Your task to perform on an android device: Open Amazon Image 0: 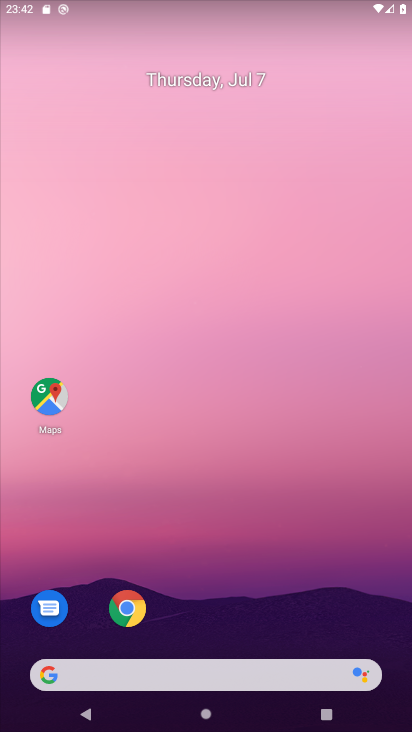
Step 0: drag from (303, 639) to (208, 216)
Your task to perform on an android device: Open Amazon Image 1: 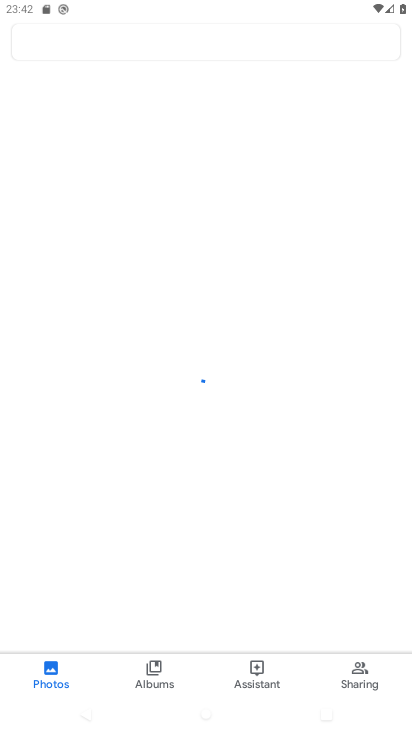
Step 1: press home button
Your task to perform on an android device: Open Amazon Image 2: 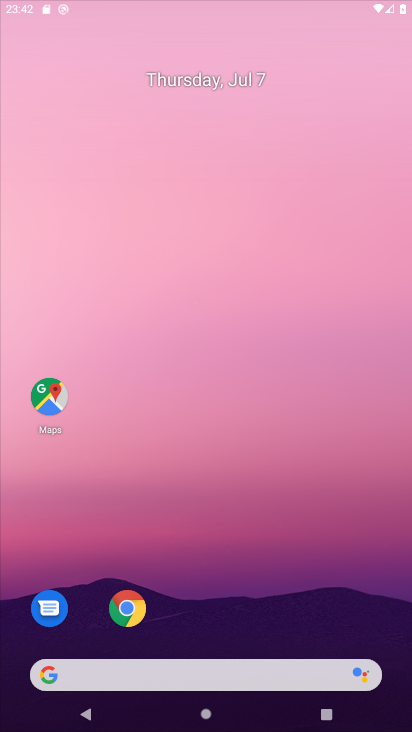
Step 2: drag from (227, 610) to (227, 178)
Your task to perform on an android device: Open Amazon Image 3: 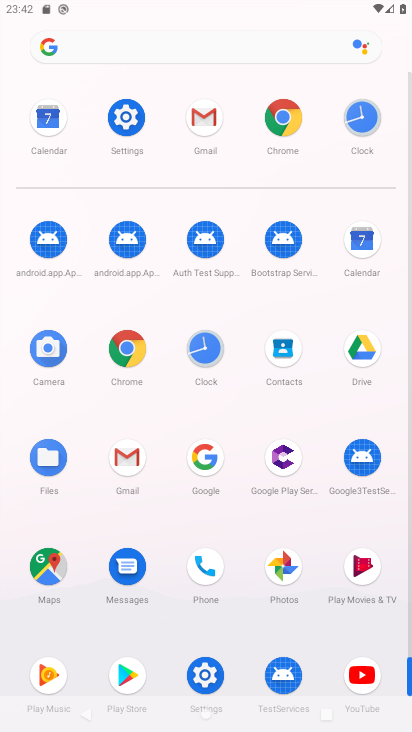
Step 3: click (120, 342)
Your task to perform on an android device: Open Amazon Image 4: 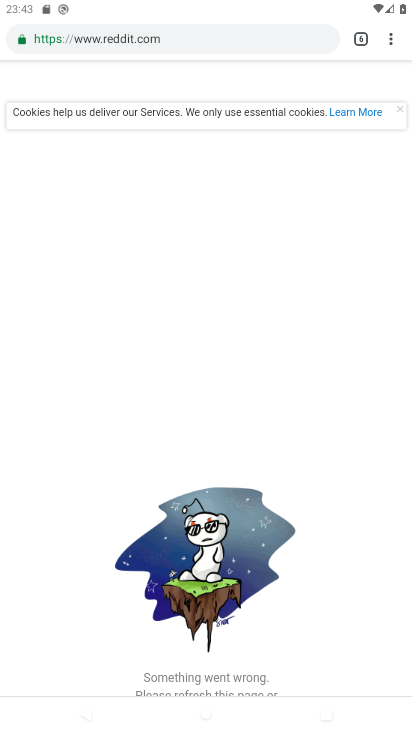
Step 4: click (395, 32)
Your task to perform on an android device: Open Amazon Image 5: 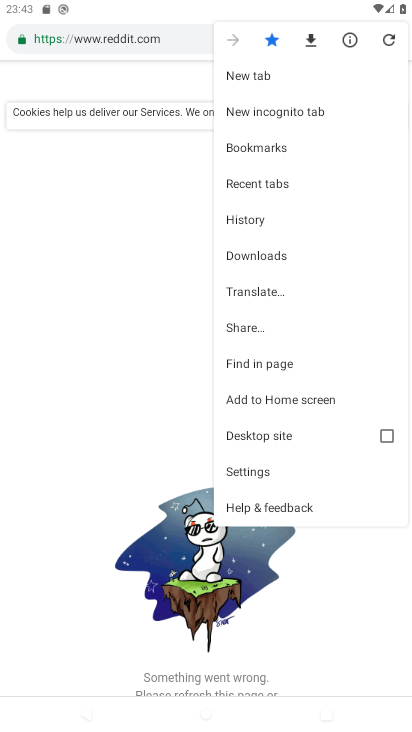
Step 5: click (245, 81)
Your task to perform on an android device: Open Amazon Image 6: 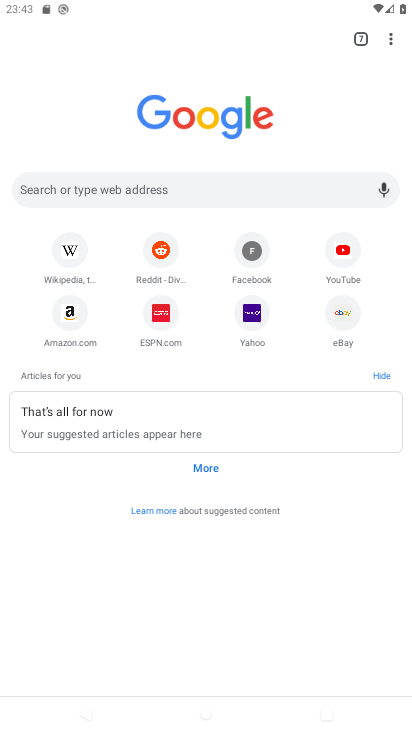
Step 6: click (57, 314)
Your task to perform on an android device: Open Amazon Image 7: 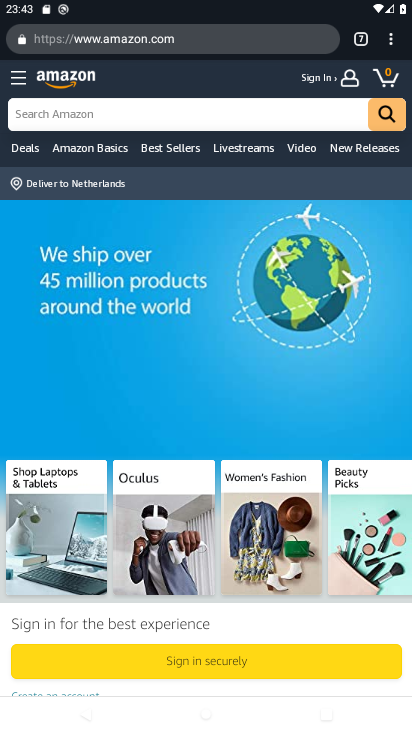
Step 7: task complete